Your task to perform on an android device: Go to Android settings Image 0: 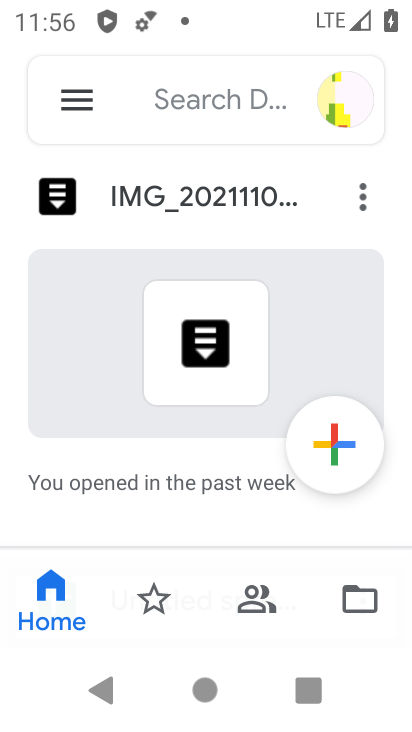
Step 0: press home button
Your task to perform on an android device: Go to Android settings Image 1: 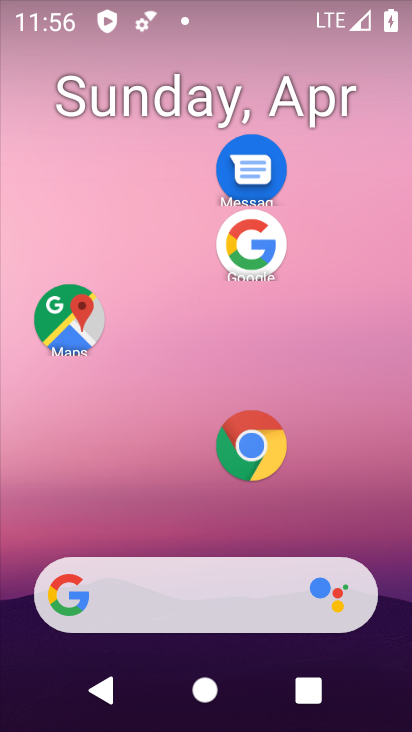
Step 1: drag from (185, 569) to (294, 95)
Your task to perform on an android device: Go to Android settings Image 2: 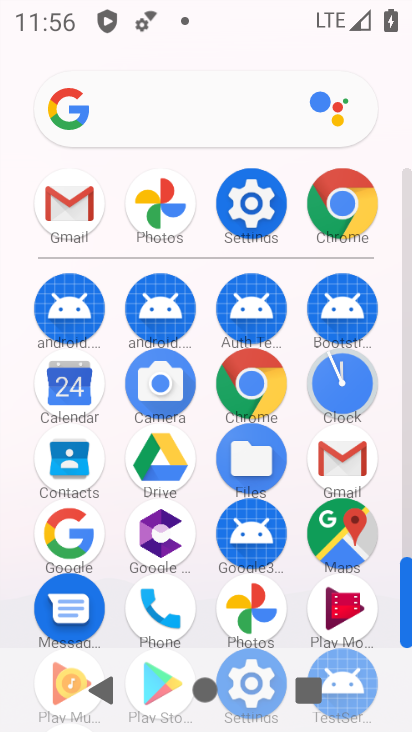
Step 2: click (259, 218)
Your task to perform on an android device: Go to Android settings Image 3: 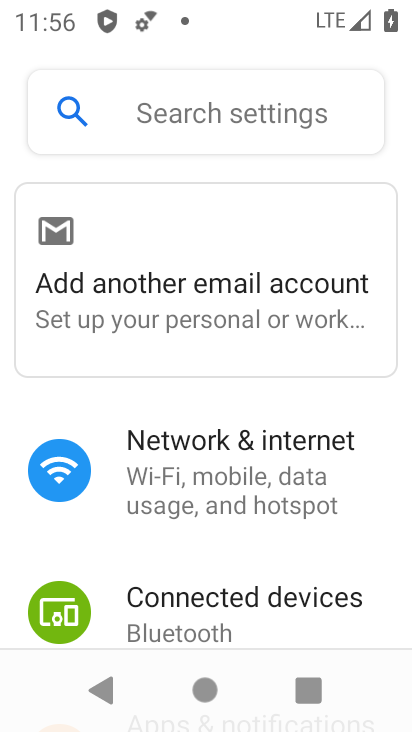
Step 3: task complete